Your task to perform on an android device: open wifi settings Image 0: 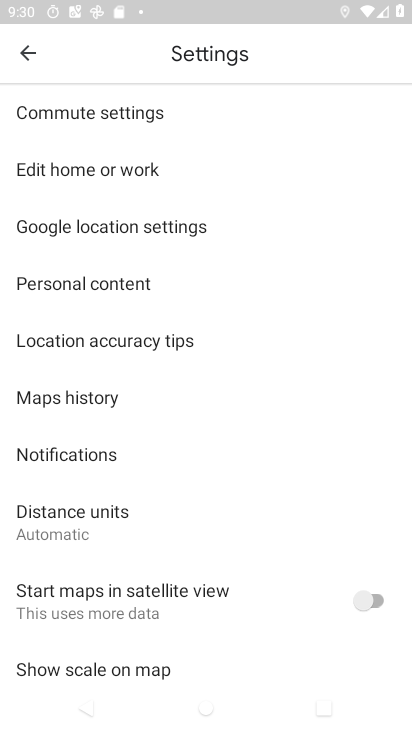
Step 0: press home button
Your task to perform on an android device: open wifi settings Image 1: 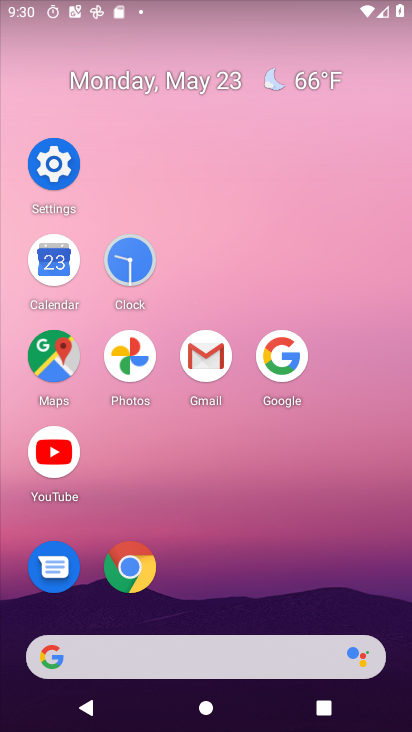
Step 1: click (61, 170)
Your task to perform on an android device: open wifi settings Image 2: 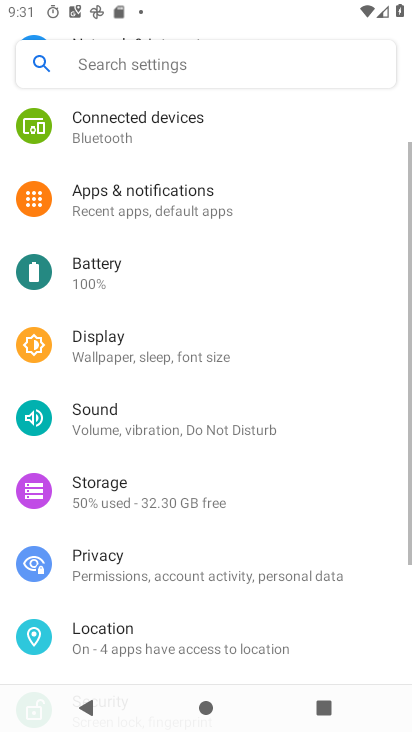
Step 2: drag from (189, 170) to (190, 556)
Your task to perform on an android device: open wifi settings Image 3: 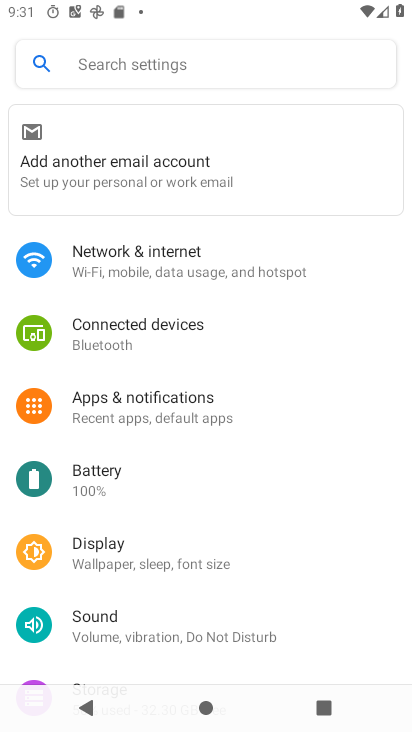
Step 3: click (209, 267)
Your task to perform on an android device: open wifi settings Image 4: 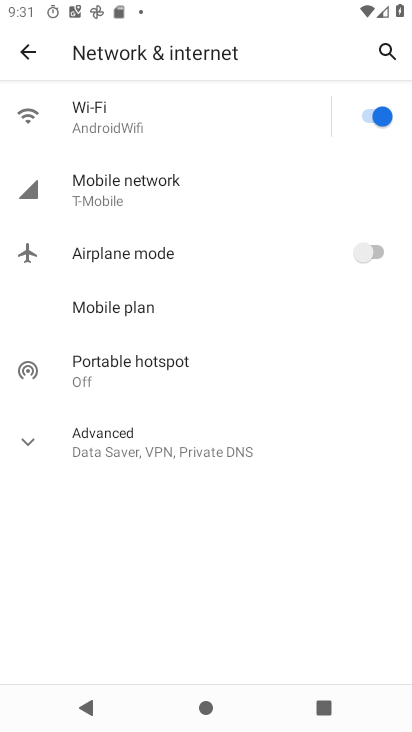
Step 4: click (160, 125)
Your task to perform on an android device: open wifi settings Image 5: 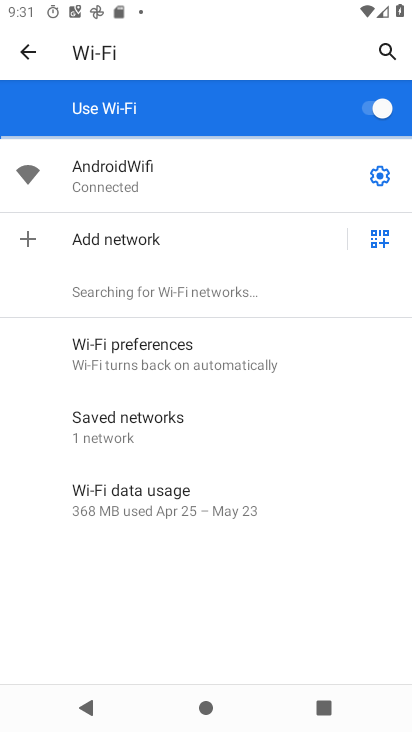
Step 5: click (376, 182)
Your task to perform on an android device: open wifi settings Image 6: 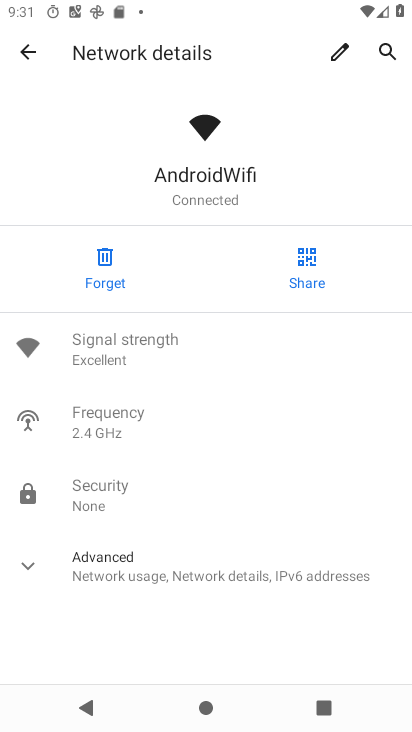
Step 6: task complete